Your task to perform on an android device: install app "Truecaller" Image 0: 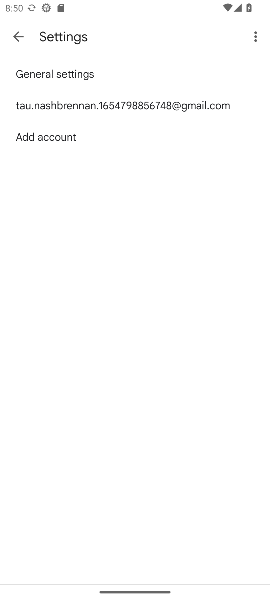
Step 0: press home button
Your task to perform on an android device: install app "Truecaller" Image 1: 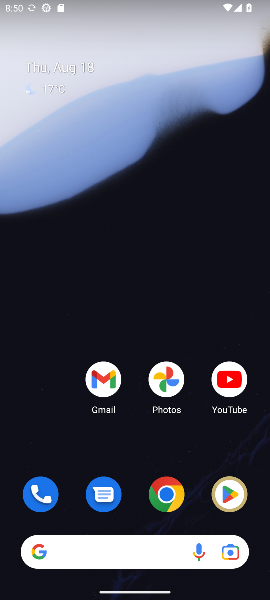
Step 1: click (231, 495)
Your task to perform on an android device: install app "Truecaller" Image 2: 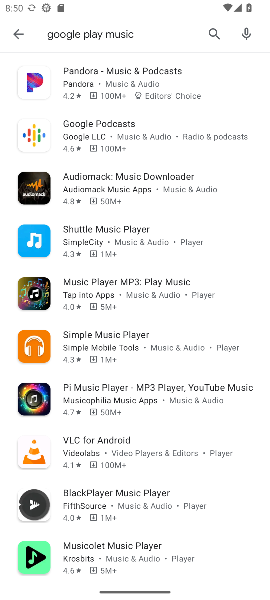
Step 2: click (212, 34)
Your task to perform on an android device: install app "Truecaller" Image 3: 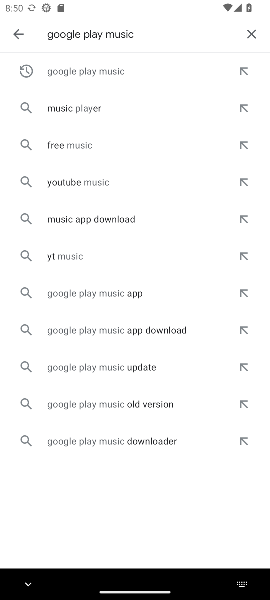
Step 3: click (252, 33)
Your task to perform on an android device: install app "Truecaller" Image 4: 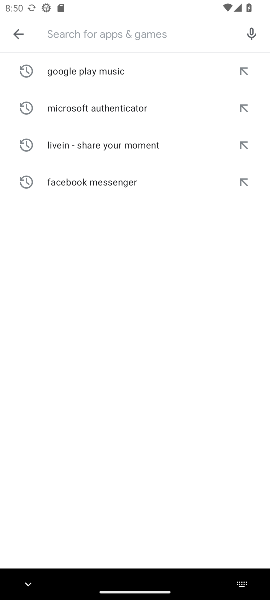
Step 4: type "truecaller"
Your task to perform on an android device: install app "Truecaller" Image 5: 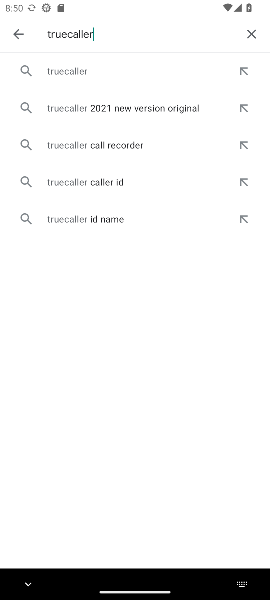
Step 5: click (77, 72)
Your task to perform on an android device: install app "Truecaller" Image 6: 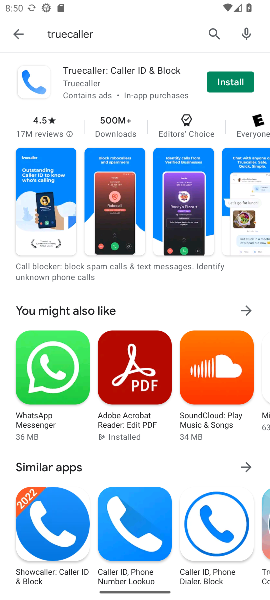
Step 6: click (229, 83)
Your task to perform on an android device: install app "Truecaller" Image 7: 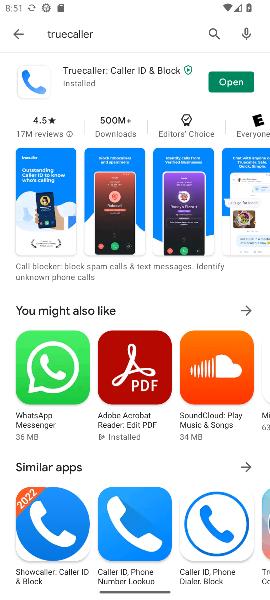
Step 7: task complete